Your task to perform on an android device: uninstall "Flipkart Online Shopping App" Image 0: 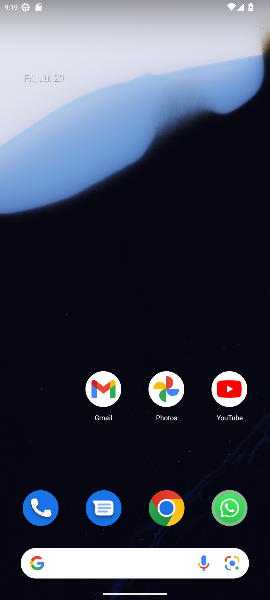
Step 0: drag from (184, 549) to (205, 11)
Your task to perform on an android device: uninstall "Flipkart Online Shopping App" Image 1: 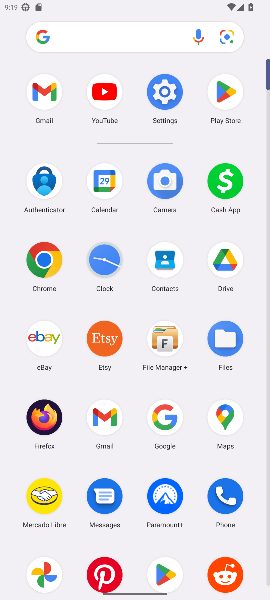
Step 1: click (231, 83)
Your task to perform on an android device: uninstall "Flipkart Online Shopping App" Image 2: 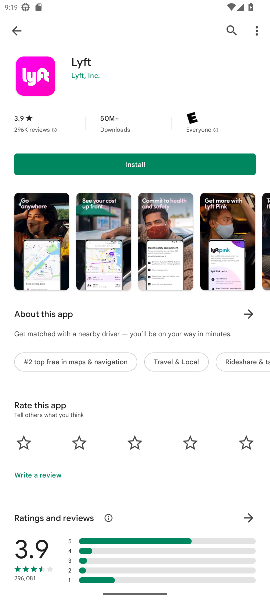
Step 2: click (236, 28)
Your task to perform on an android device: uninstall "Flipkart Online Shopping App" Image 3: 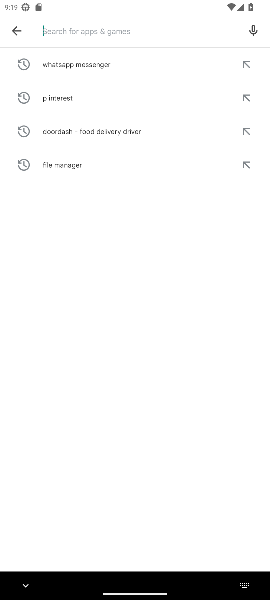
Step 3: type "flipkart online shopping app"
Your task to perform on an android device: uninstall "Flipkart Online Shopping App" Image 4: 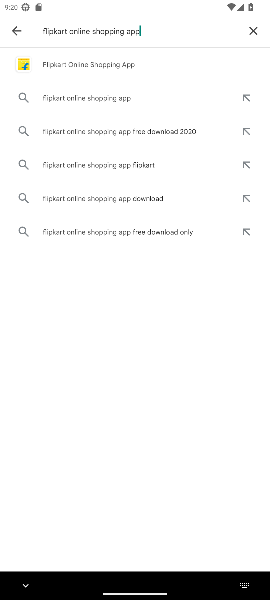
Step 4: click (133, 64)
Your task to perform on an android device: uninstall "Flipkart Online Shopping App" Image 5: 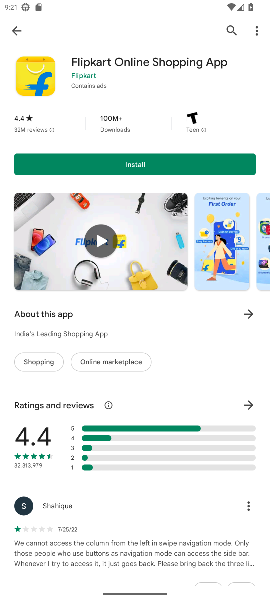
Step 5: task complete